Your task to perform on an android device: Turn on the flashlight Image 0: 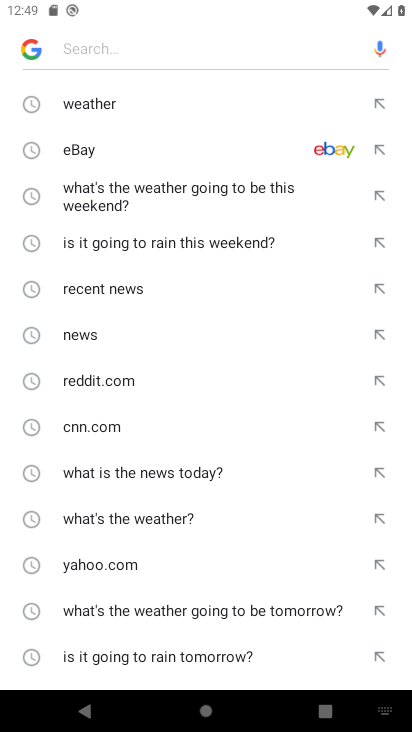
Step 0: press home button
Your task to perform on an android device: Turn on the flashlight Image 1: 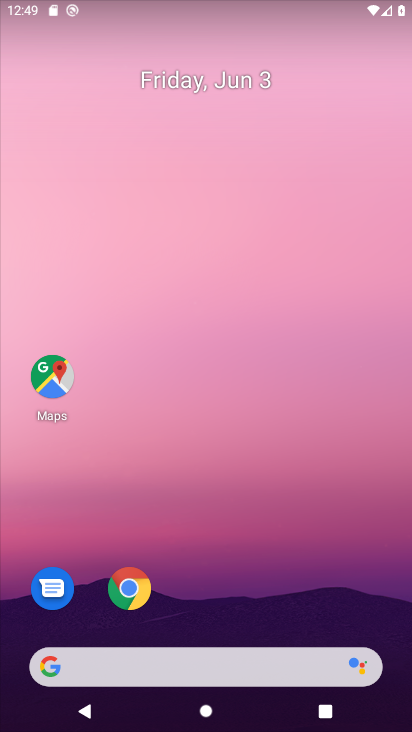
Step 1: drag from (255, 613) to (186, 56)
Your task to perform on an android device: Turn on the flashlight Image 2: 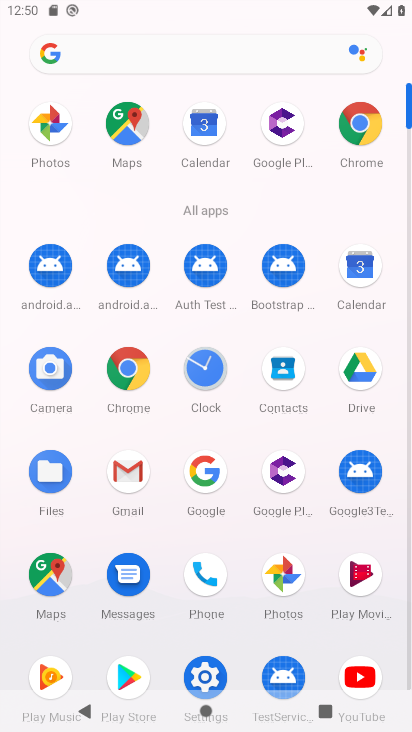
Step 2: drag from (324, 6) to (334, 314)
Your task to perform on an android device: Turn on the flashlight Image 3: 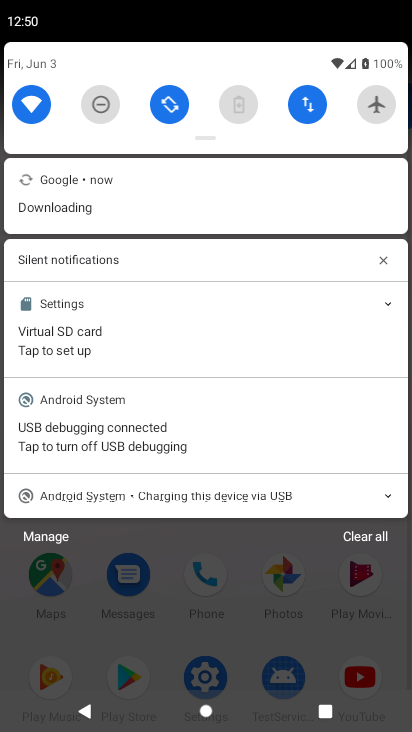
Step 3: drag from (283, 118) to (314, 370)
Your task to perform on an android device: Turn on the flashlight Image 4: 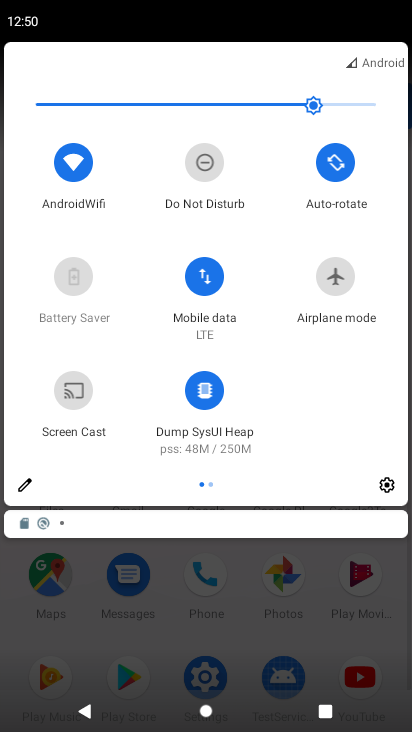
Step 4: click (23, 483)
Your task to perform on an android device: Turn on the flashlight Image 5: 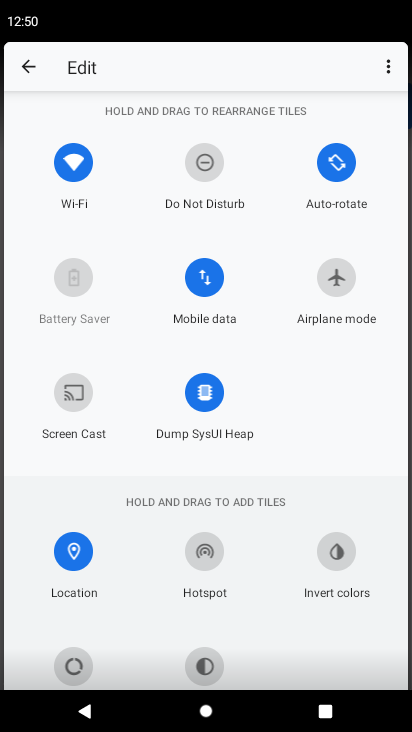
Step 5: task complete